Your task to perform on an android device: Go to Amazon Image 0: 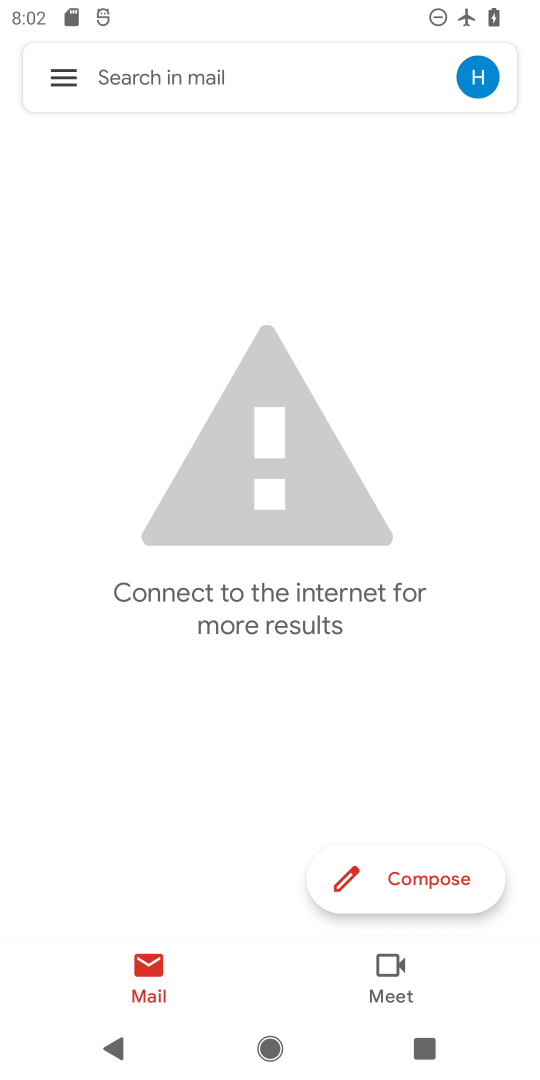
Step 0: press home button
Your task to perform on an android device: Go to Amazon Image 1: 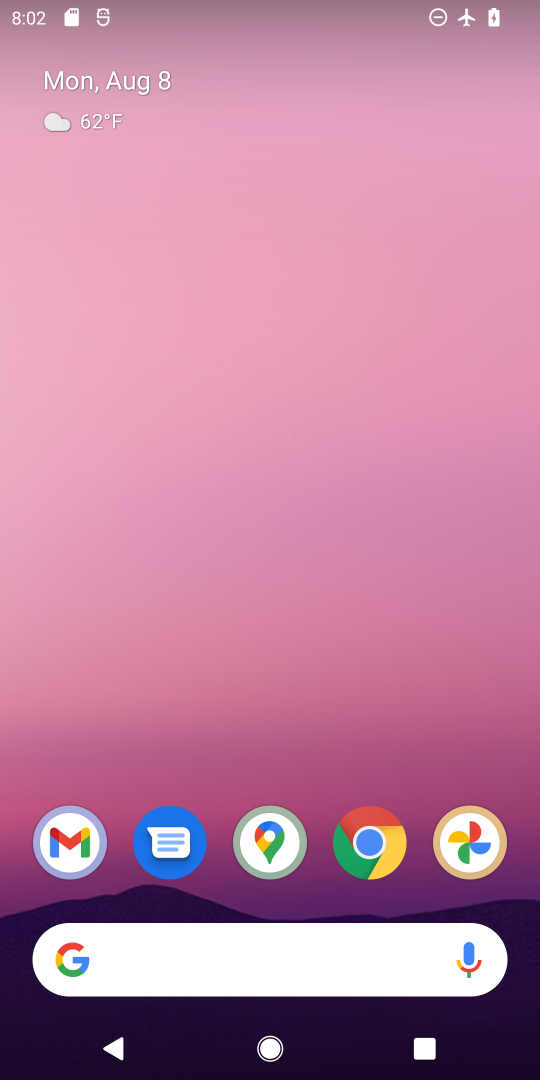
Step 1: drag from (308, 792) to (207, 64)
Your task to perform on an android device: Go to Amazon Image 2: 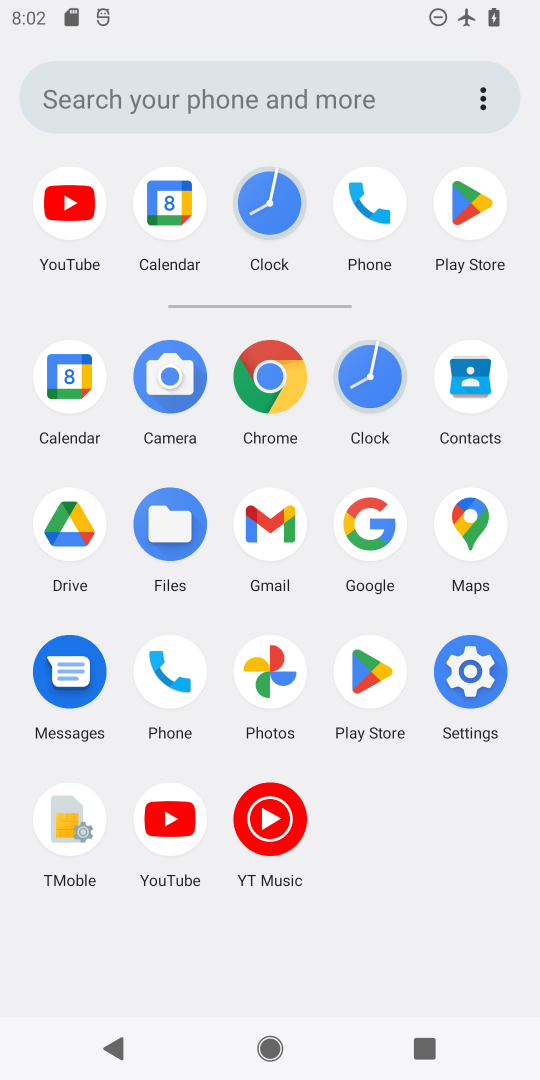
Step 2: click (254, 398)
Your task to perform on an android device: Go to Amazon Image 3: 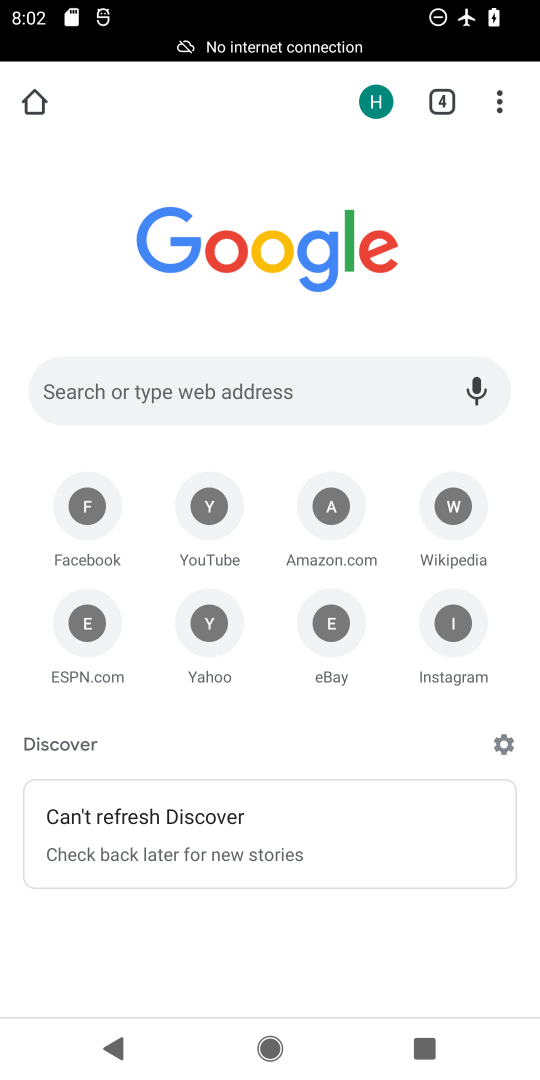
Step 3: click (330, 520)
Your task to perform on an android device: Go to Amazon Image 4: 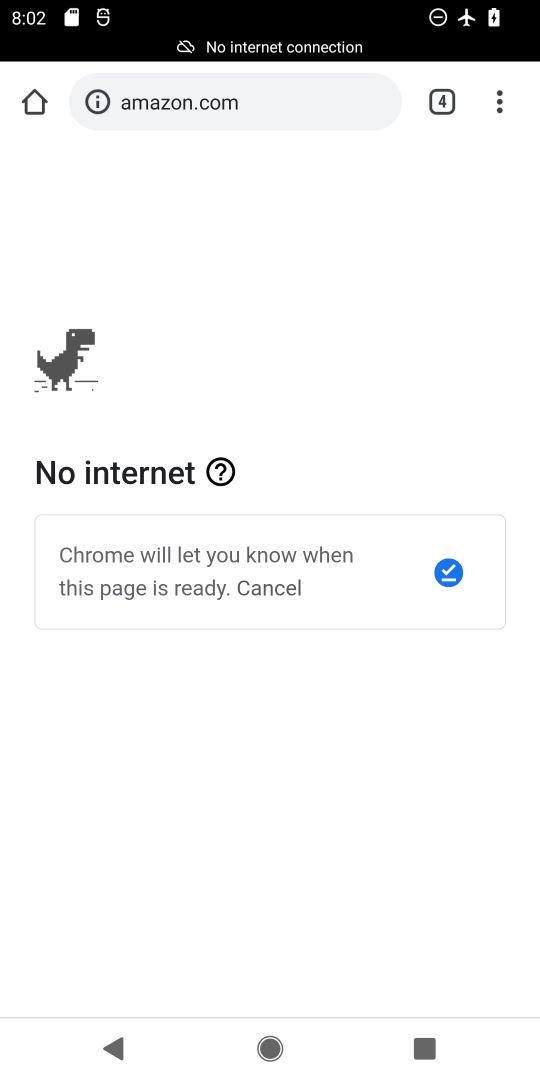
Step 4: task complete